Your task to perform on an android device: Check the weather Image 0: 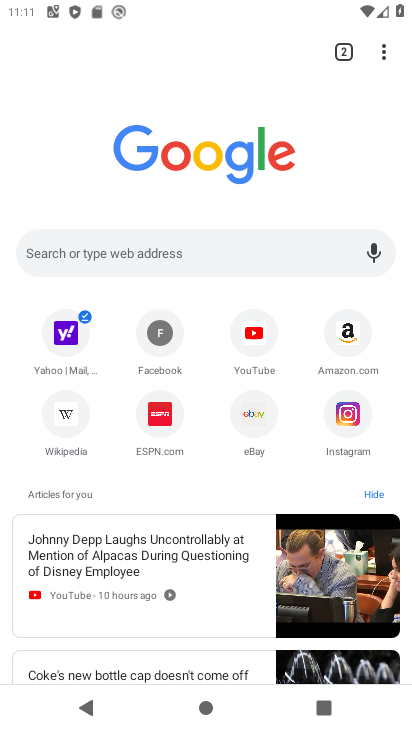
Step 0: press home button
Your task to perform on an android device: Check the weather Image 1: 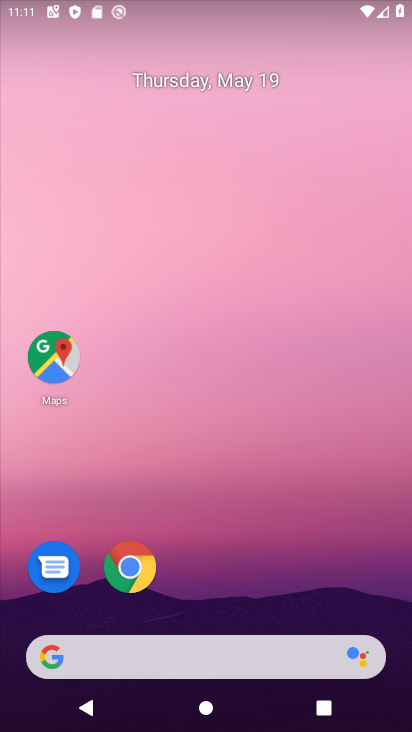
Step 1: drag from (5, 171) to (146, 183)
Your task to perform on an android device: Check the weather Image 2: 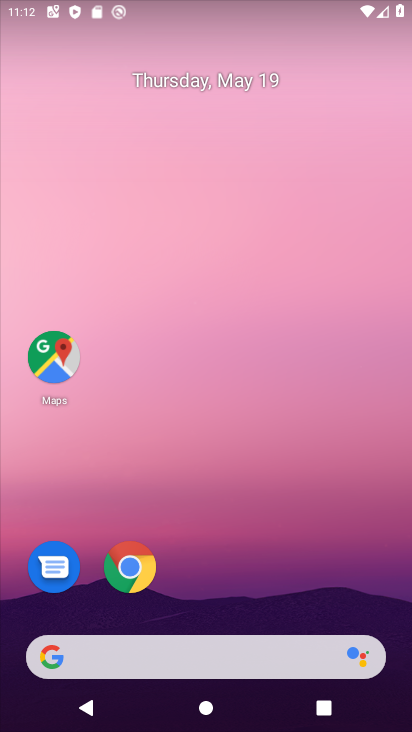
Step 2: drag from (11, 256) to (311, 264)
Your task to perform on an android device: Check the weather Image 3: 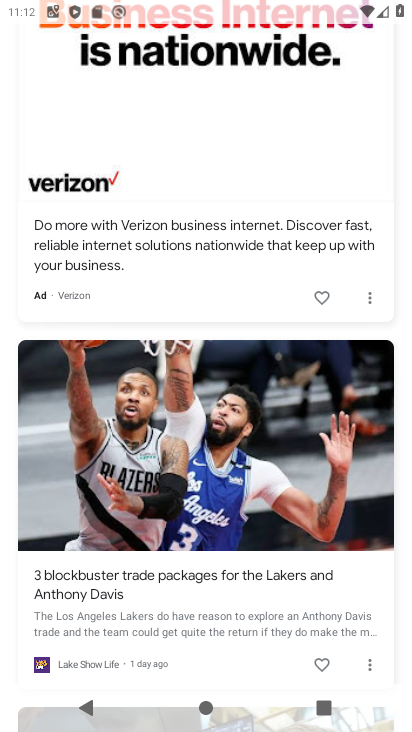
Step 3: drag from (253, 144) to (238, 449)
Your task to perform on an android device: Check the weather Image 4: 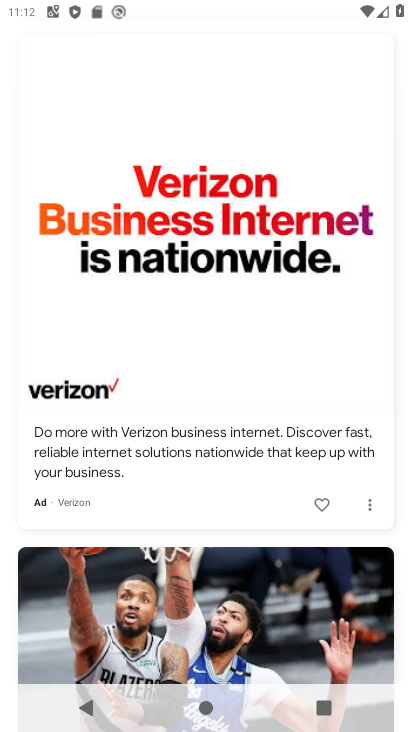
Step 4: drag from (241, 124) to (218, 460)
Your task to perform on an android device: Check the weather Image 5: 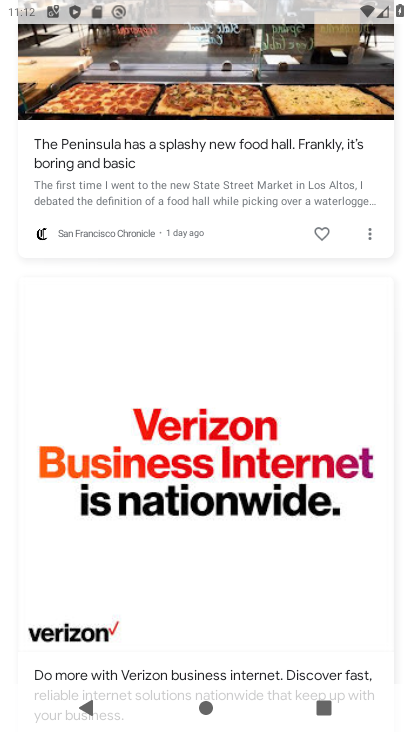
Step 5: drag from (217, 273) to (192, 578)
Your task to perform on an android device: Check the weather Image 6: 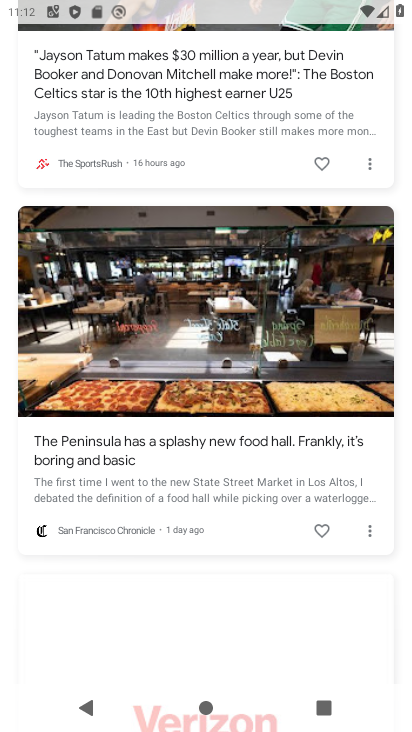
Step 6: drag from (223, 254) to (213, 591)
Your task to perform on an android device: Check the weather Image 7: 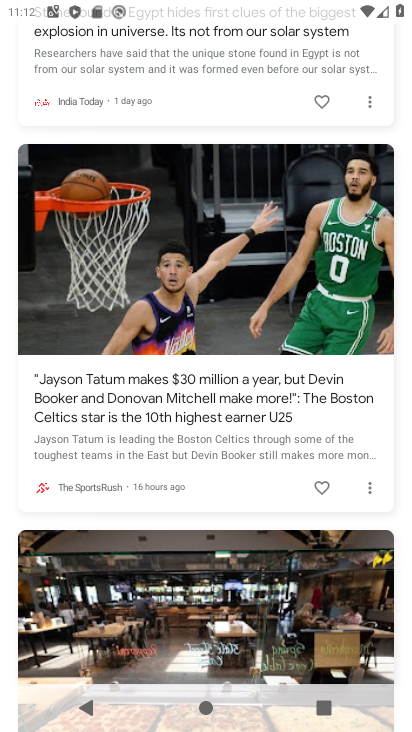
Step 7: drag from (249, 351) to (218, 714)
Your task to perform on an android device: Check the weather Image 8: 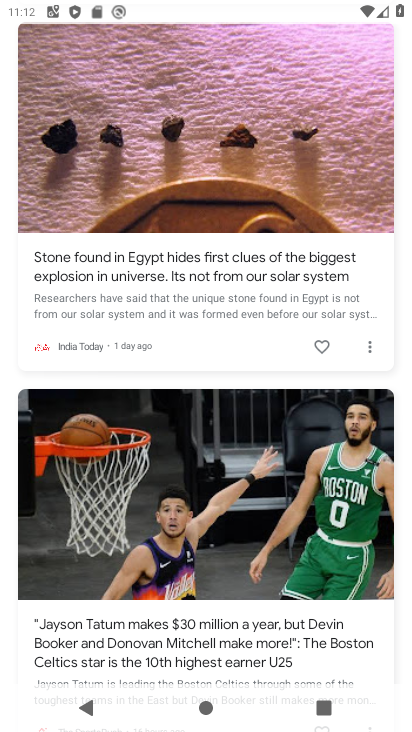
Step 8: drag from (242, 198) to (221, 493)
Your task to perform on an android device: Check the weather Image 9: 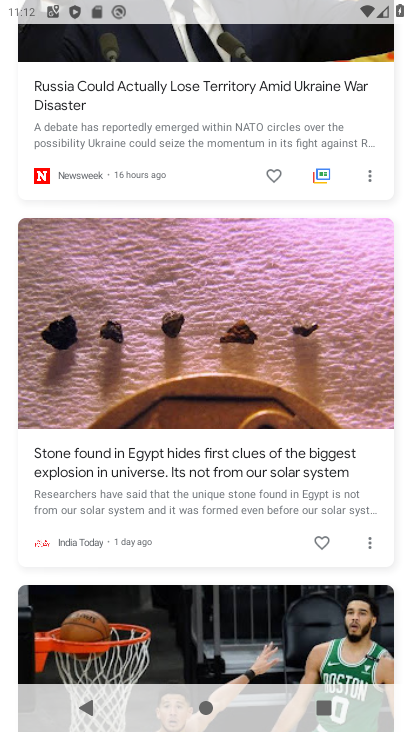
Step 9: drag from (244, 84) to (245, 462)
Your task to perform on an android device: Check the weather Image 10: 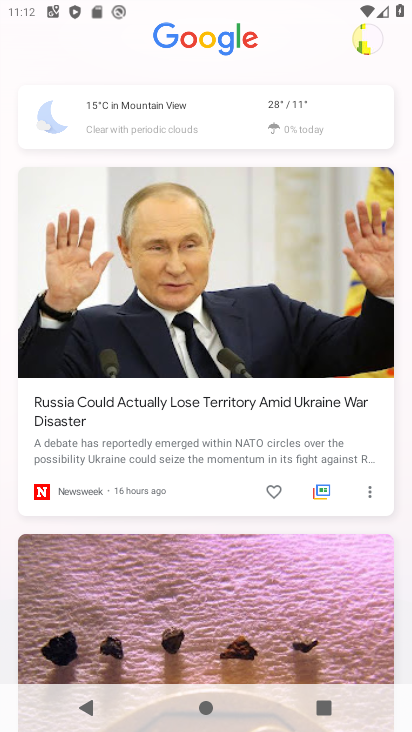
Step 10: drag from (247, 127) to (234, 502)
Your task to perform on an android device: Check the weather Image 11: 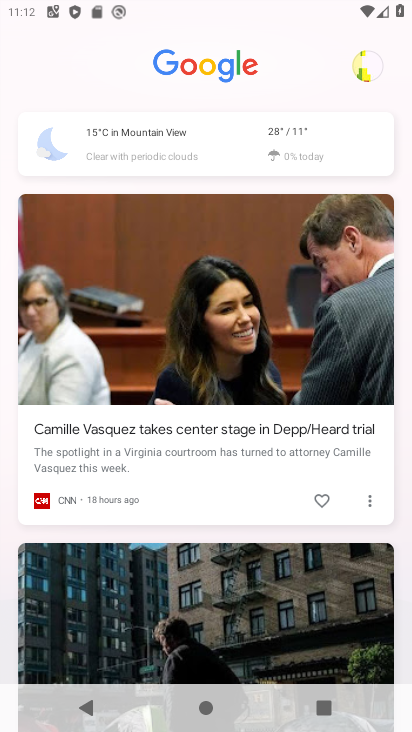
Step 11: click (276, 132)
Your task to perform on an android device: Check the weather Image 12: 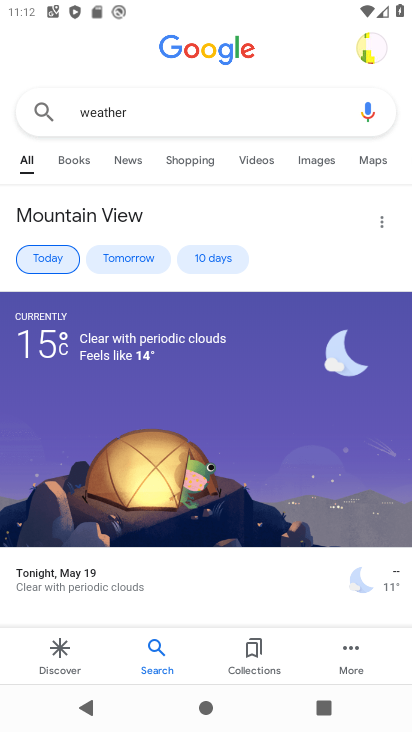
Step 12: task complete